Your task to perform on an android device: Open the phone app and click the voicemail tab. Image 0: 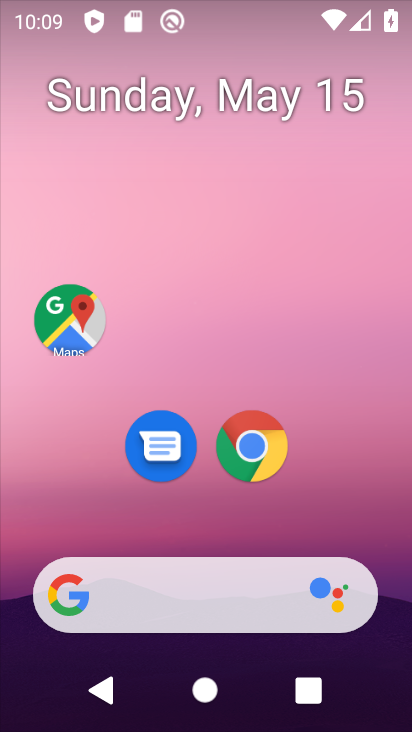
Step 0: drag from (324, 344) to (294, 60)
Your task to perform on an android device: Open the phone app and click the voicemail tab. Image 1: 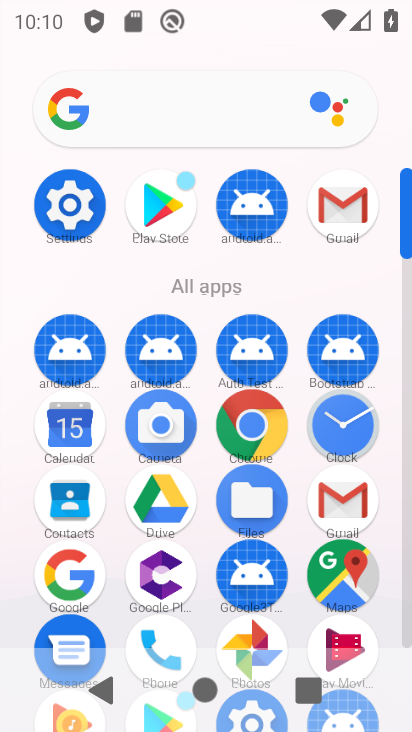
Step 1: click (163, 641)
Your task to perform on an android device: Open the phone app and click the voicemail tab. Image 2: 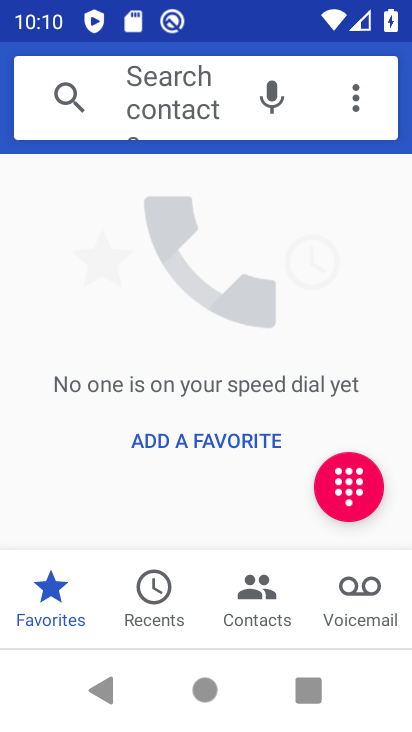
Step 2: click (358, 610)
Your task to perform on an android device: Open the phone app and click the voicemail tab. Image 3: 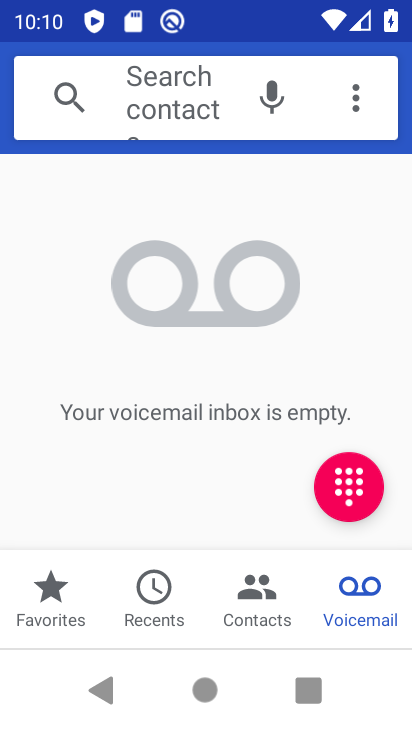
Step 3: task complete